Your task to perform on an android device: open app "Cash App" (install if not already installed), go to login, and select forgot password Image 0: 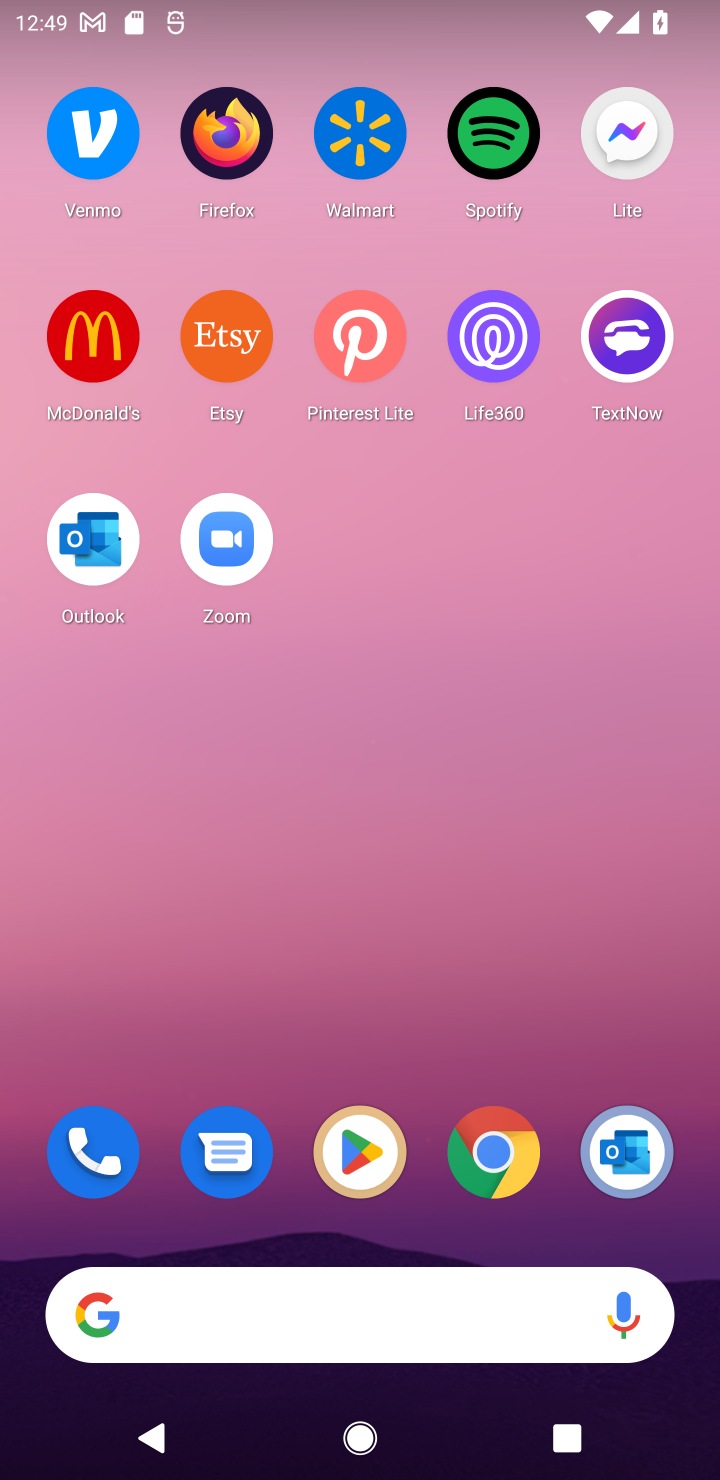
Step 0: click (356, 1166)
Your task to perform on an android device: open app "Cash App" (install if not already installed), go to login, and select forgot password Image 1: 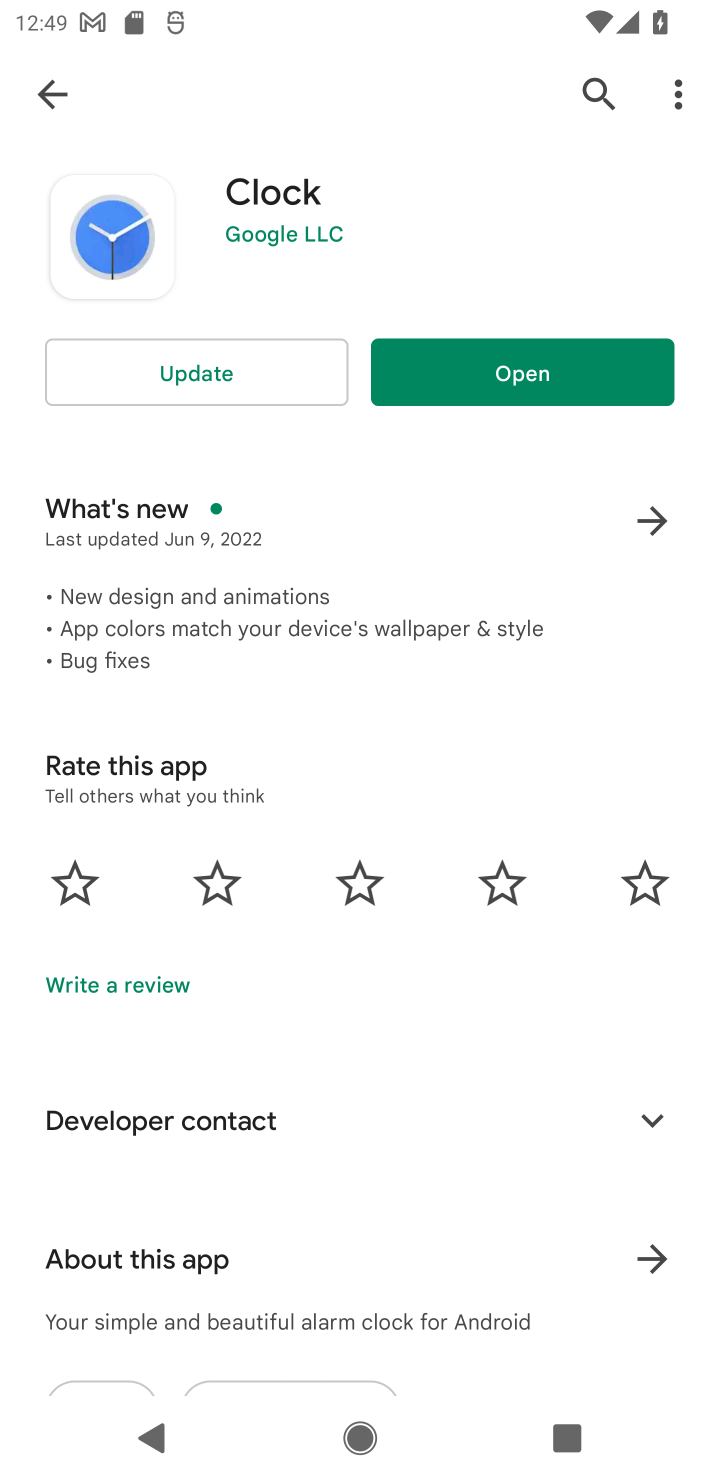
Step 1: click (50, 86)
Your task to perform on an android device: open app "Cash App" (install if not already installed), go to login, and select forgot password Image 2: 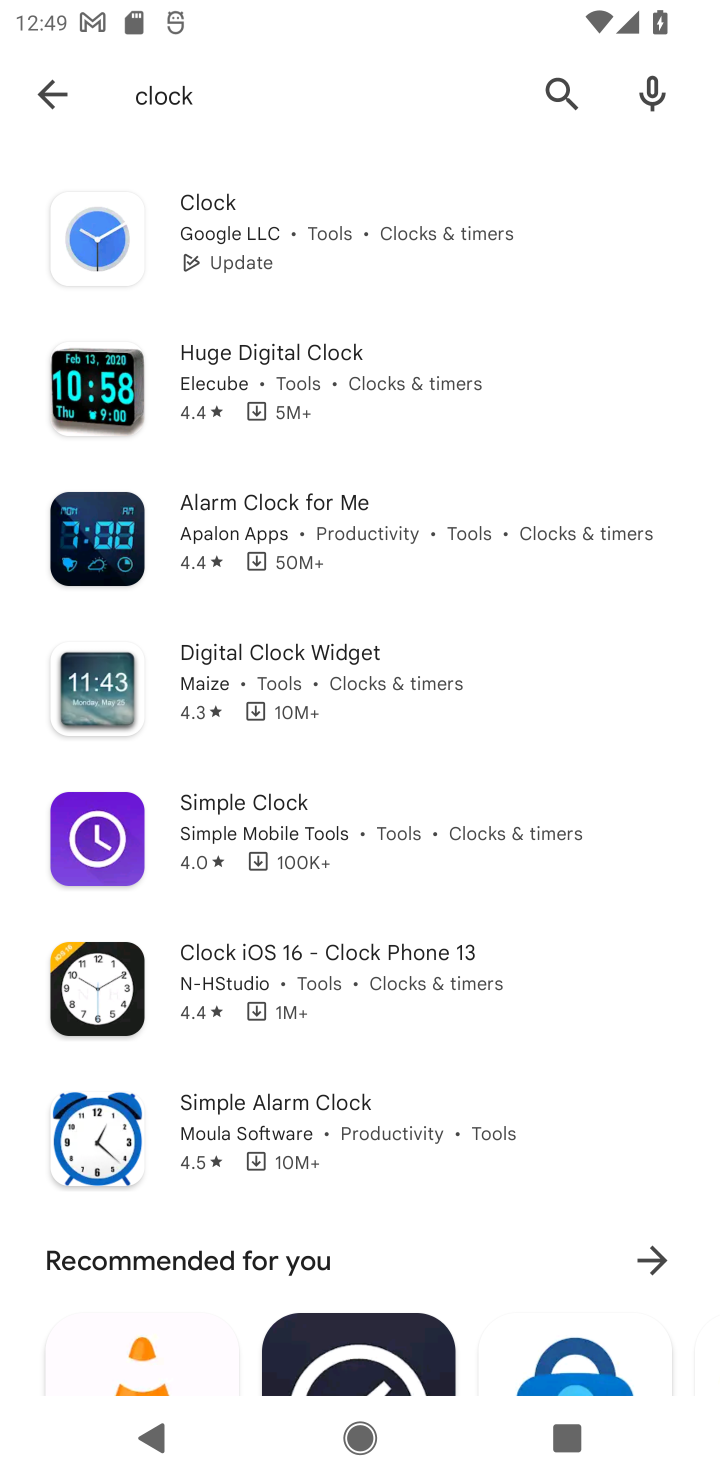
Step 2: click (65, 98)
Your task to perform on an android device: open app "Cash App" (install if not already installed), go to login, and select forgot password Image 3: 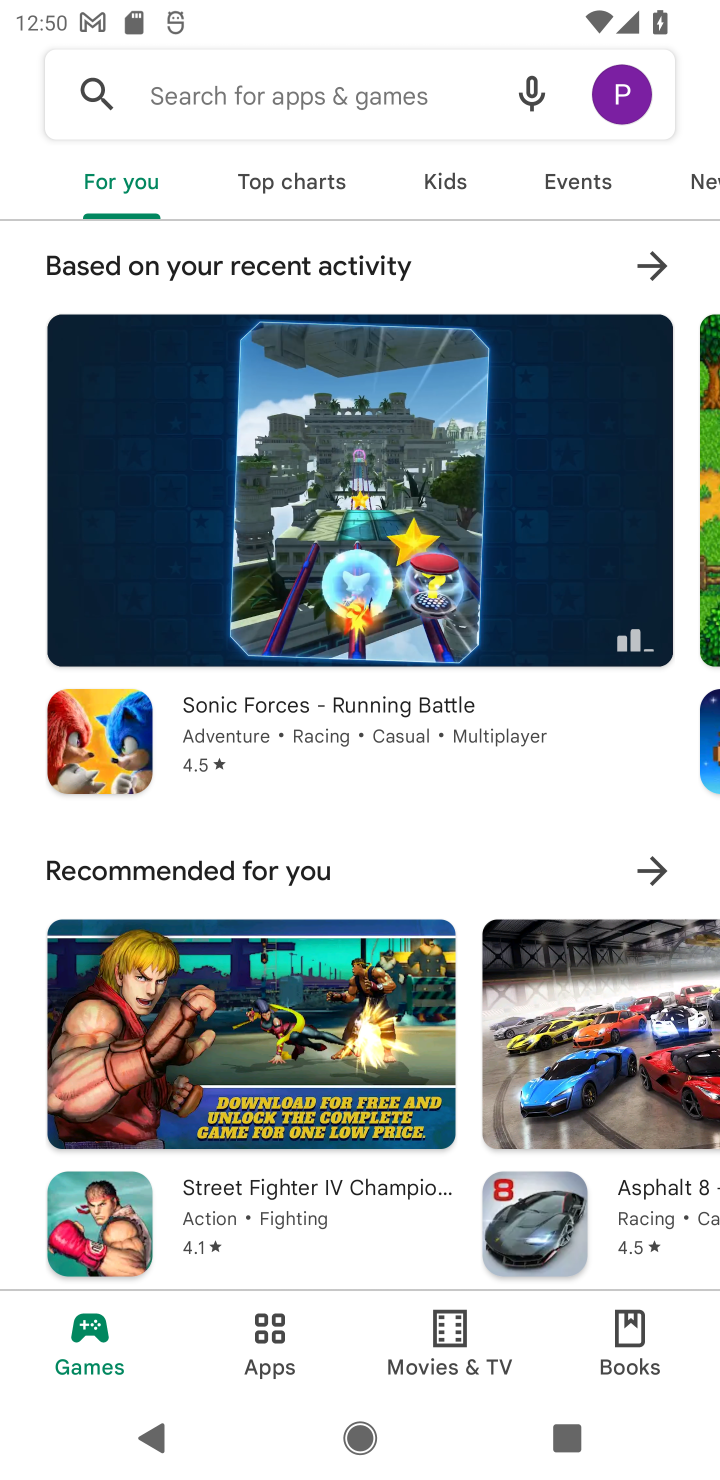
Step 3: click (382, 75)
Your task to perform on an android device: open app "Cash App" (install if not already installed), go to login, and select forgot password Image 4: 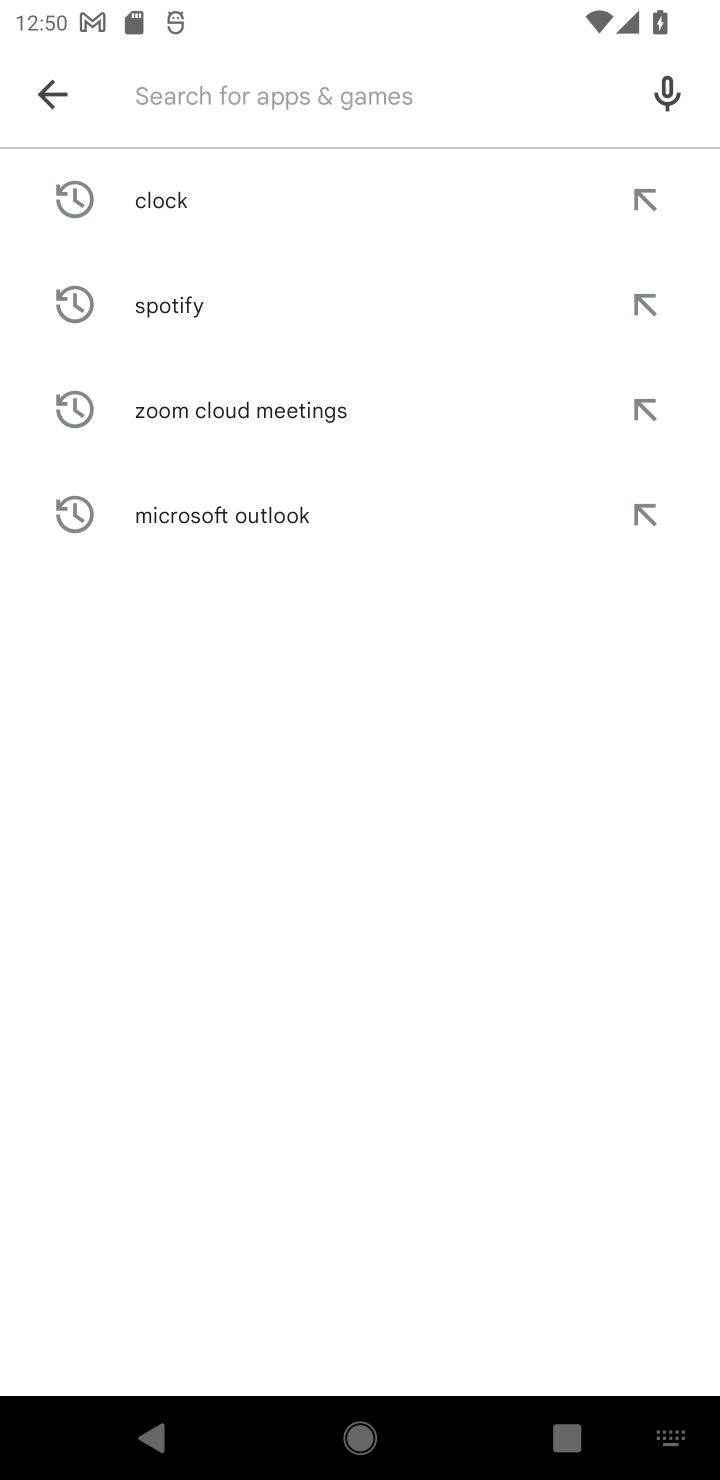
Step 4: click (283, 95)
Your task to perform on an android device: open app "Cash App" (install if not already installed), go to login, and select forgot password Image 5: 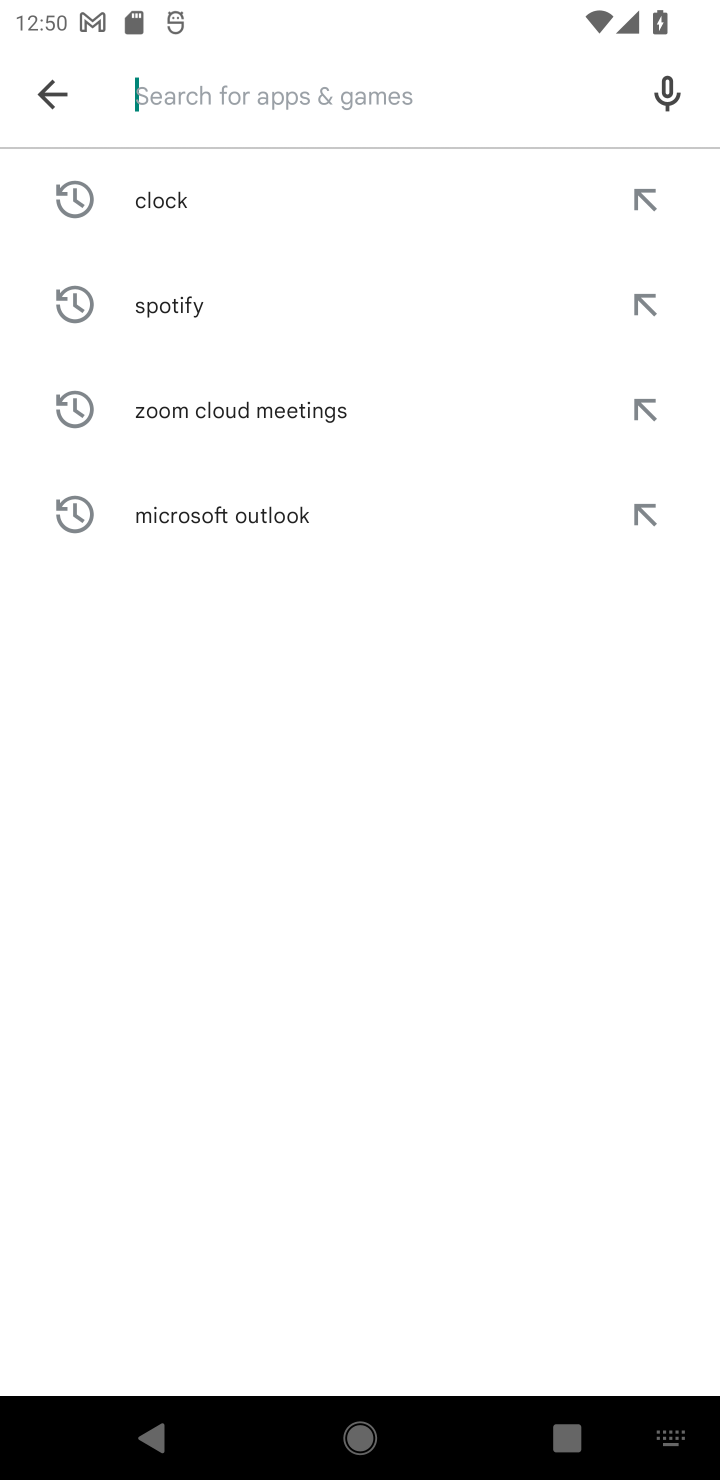
Step 5: type "Cash App"
Your task to perform on an android device: open app "Cash App" (install if not already installed), go to login, and select forgot password Image 6: 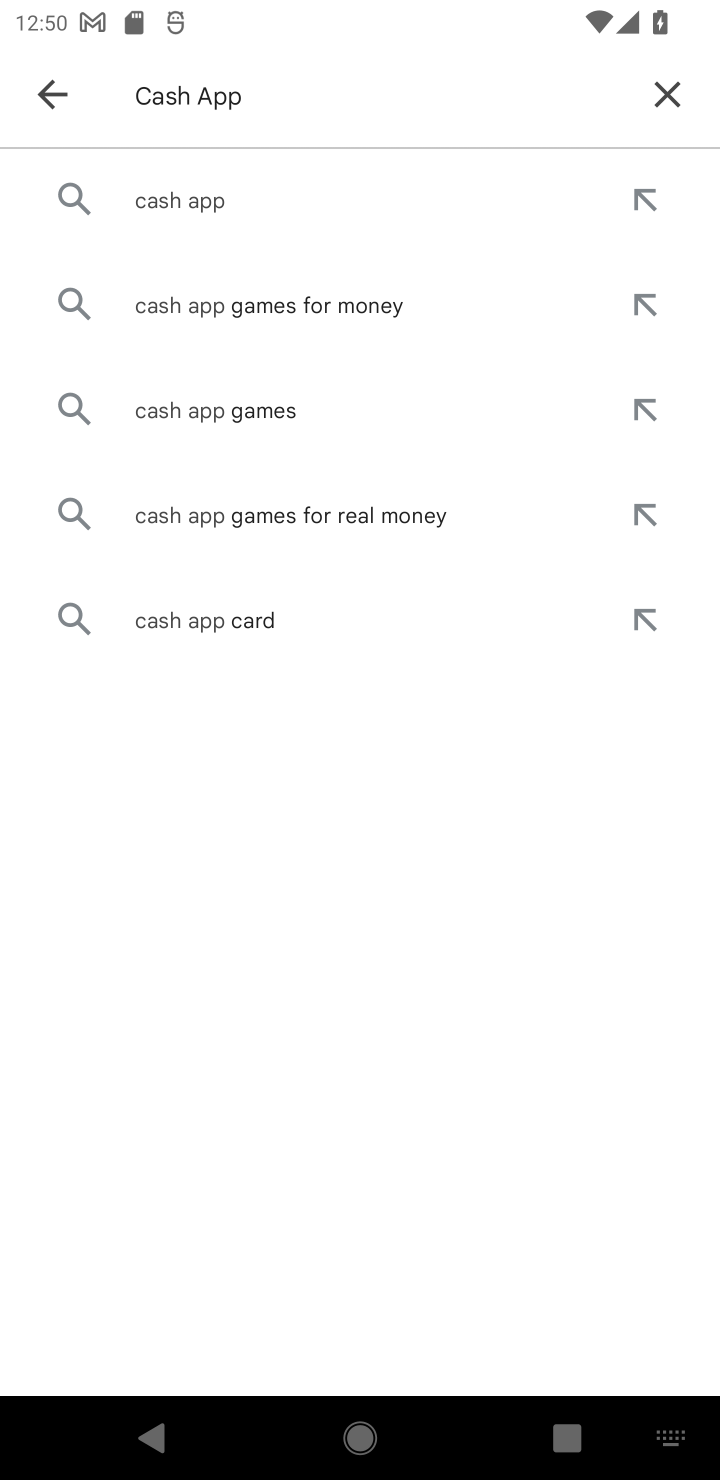
Step 6: click (188, 200)
Your task to perform on an android device: open app "Cash App" (install if not already installed), go to login, and select forgot password Image 7: 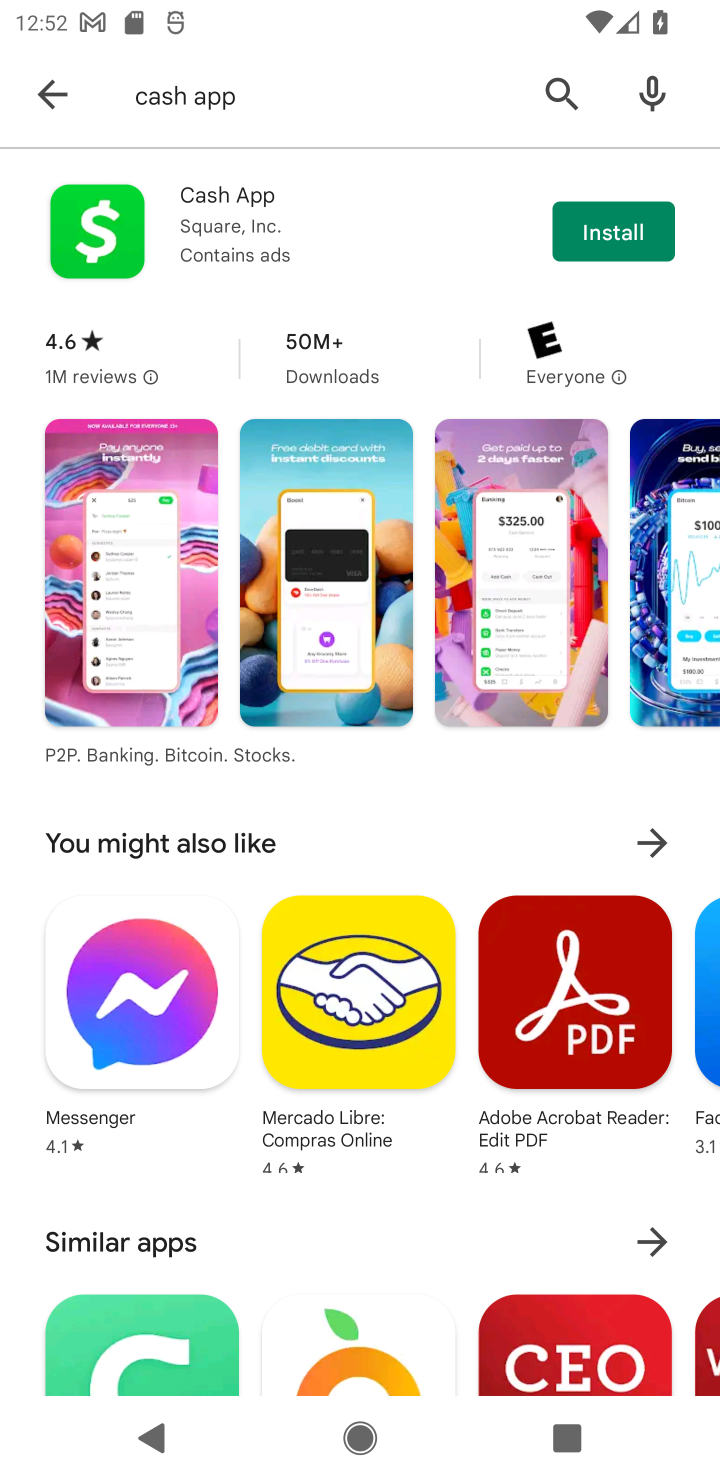
Step 7: click (569, 234)
Your task to perform on an android device: open app "Cash App" (install if not already installed), go to login, and select forgot password Image 8: 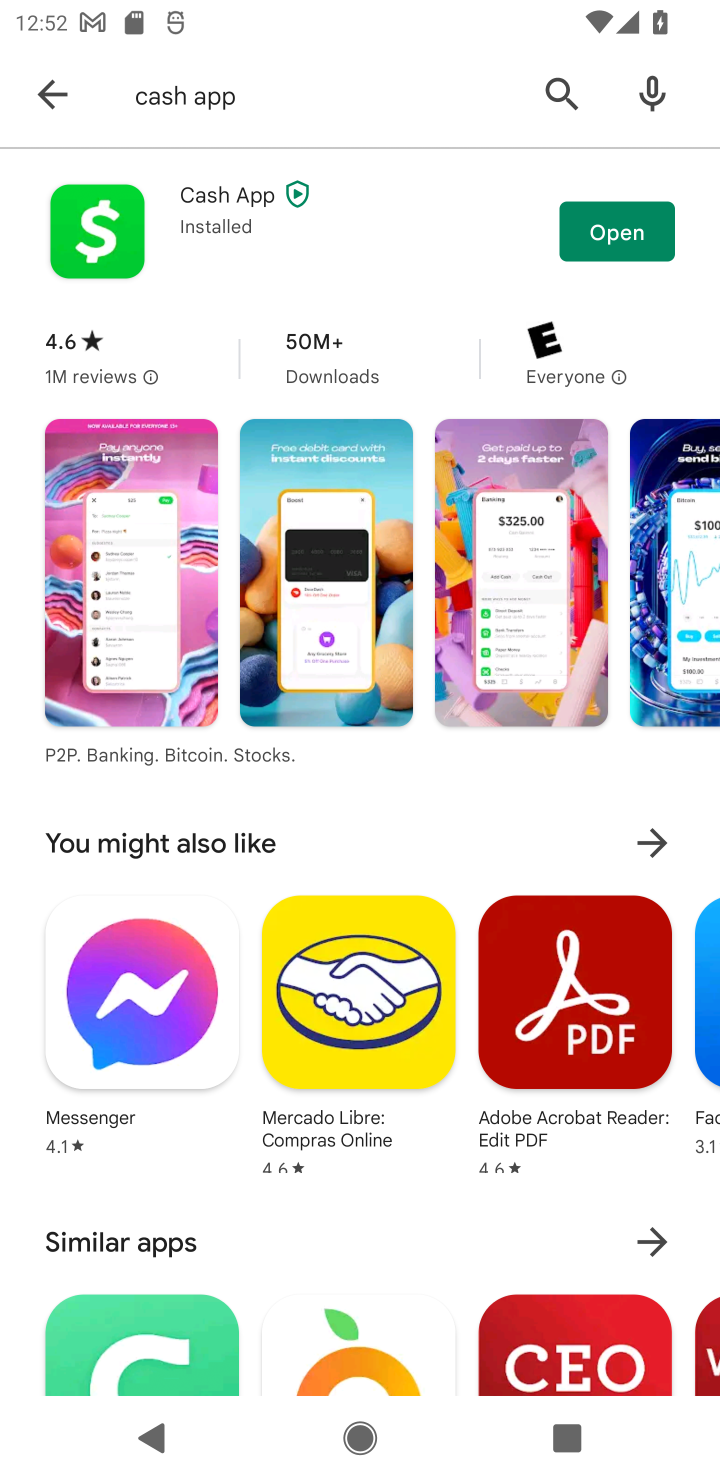
Step 8: click (594, 234)
Your task to perform on an android device: open app "Cash App" (install if not already installed), go to login, and select forgot password Image 9: 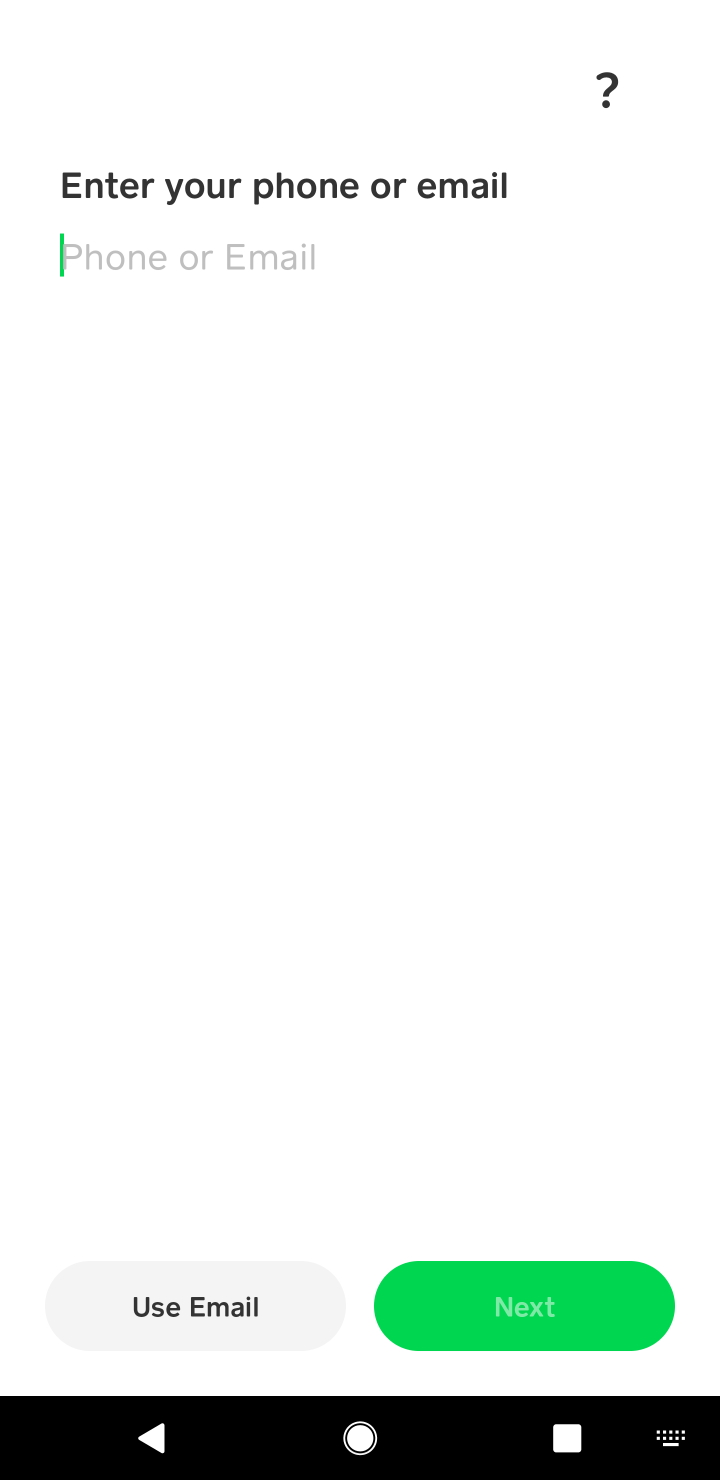
Step 9: task complete